Your task to perform on an android device: refresh tabs in the chrome app Image 0: 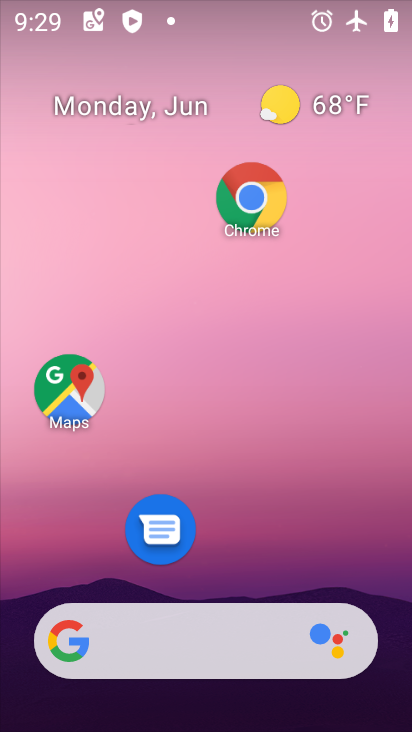
Step 0: click (262, 204)
Your task to perform on an android device: refresh tabs in the chrome app Image 1: 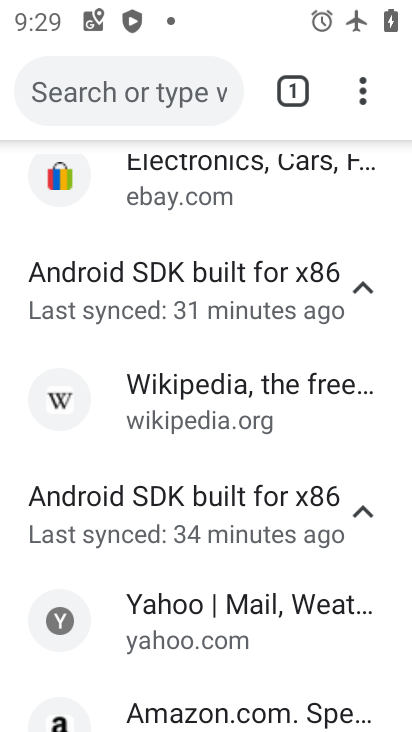
Step 1: click (358, 80)
Your task to perform on an android device: refresh tabs in the chrome app Image 2: 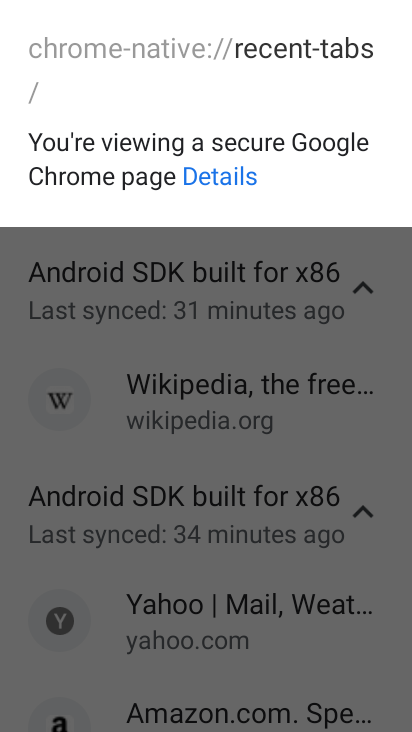
Step 2: click (283, 365)
Your task to perform on an android device: refresh tabs in the chrome app Image 3: 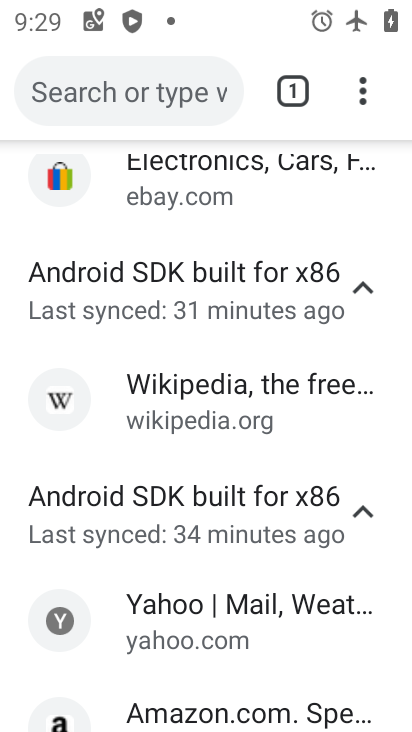
Step 3: drag from (358, 103) to (399, 89)
Your task to perform on an android device: refresh tabs in the chrome app Image 4: 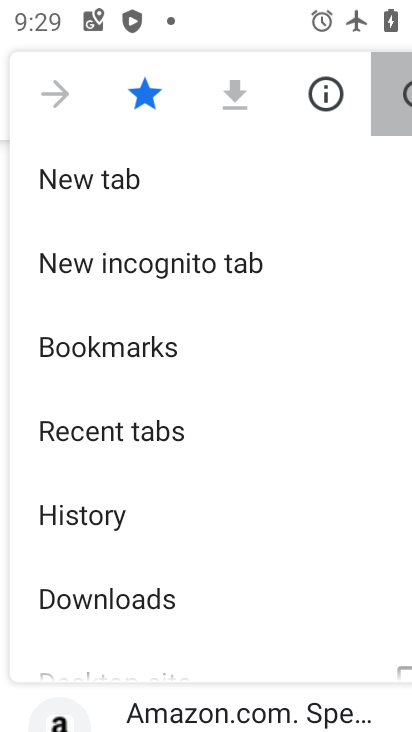
Step 4: click (399, 89)
Your task to perform on an android device: refresh tabs in the chrome app Image 5: 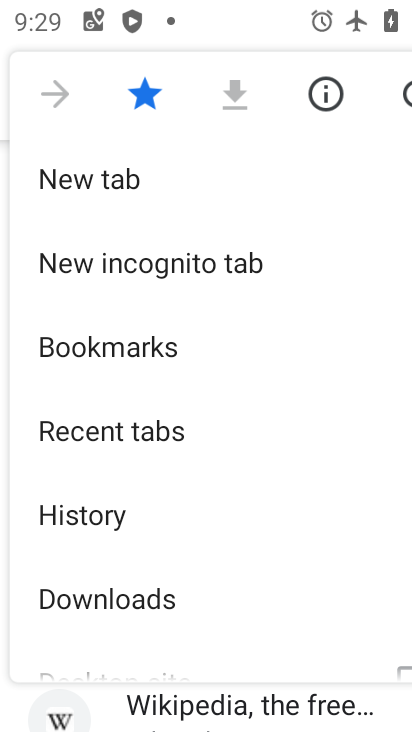
Step 5: task complete